Your task to perform on an android device: Go to battery settings Image 0: 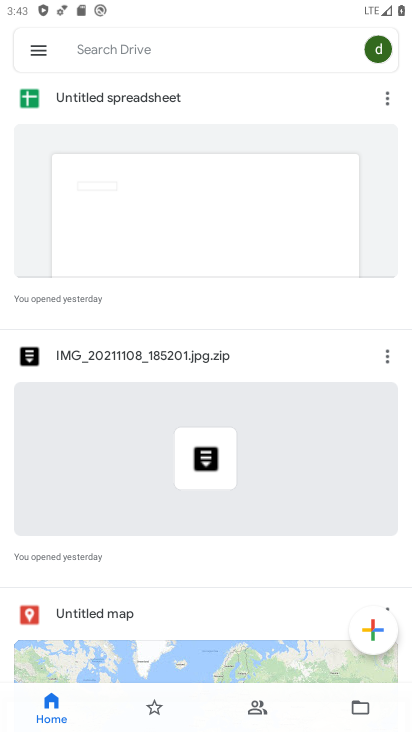
Step 0: press back button
Your task to perform on an android device: Go to battery settings Image 1: 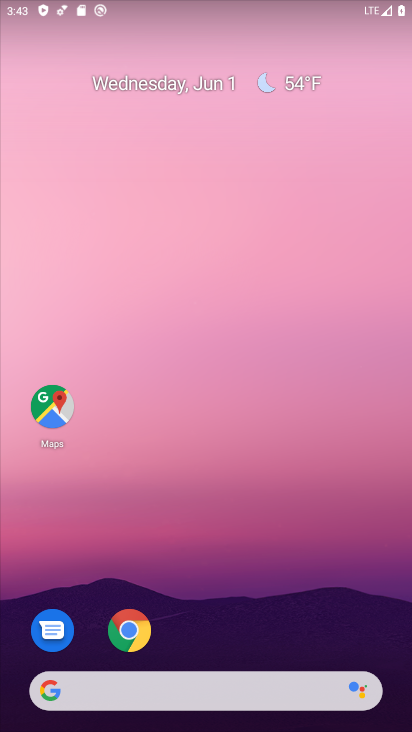
Step 1: drag from (255, 599) to (216, 9)
Your task to perform on an android device: Go to battery settings Image 2: 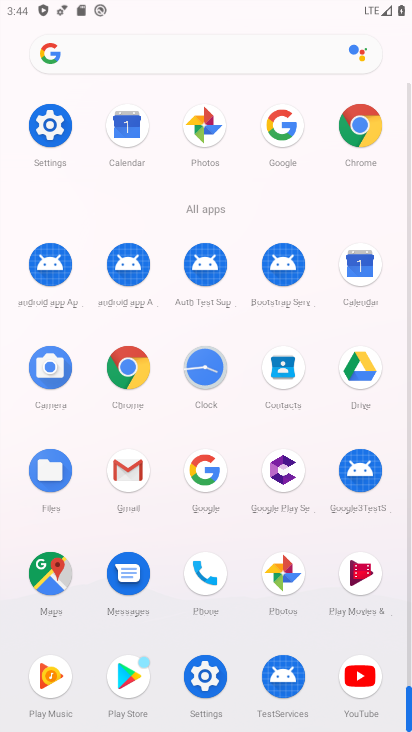
Step 2: drag from (17, 564) to (3, 216)
Your task to perform on an android device: Go to battery settings Image 3: 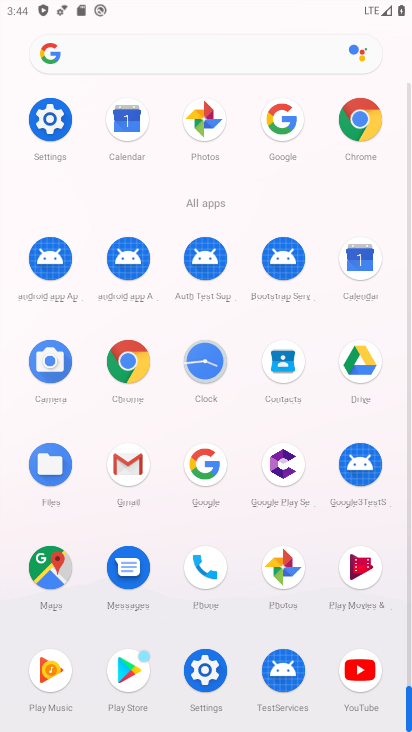
Step 3: click (201, 675)
Your task to perform on an android device: Go to battery settings Image 4: 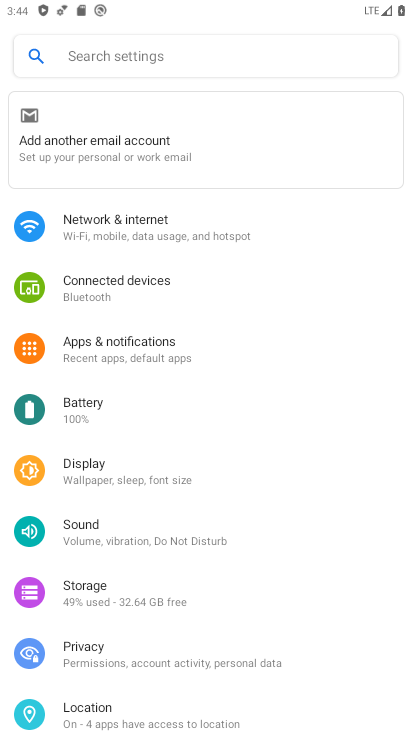
Step 4: click (106, 407)
Your task to perform on an android device: Go to battery settings Image 5: 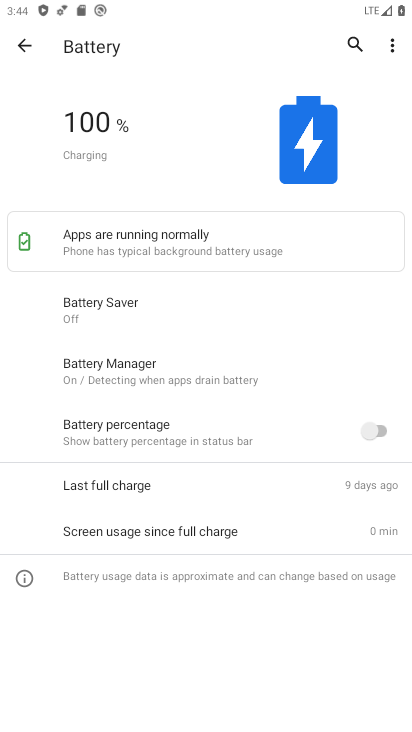
Step 5: task complete